Your task to perform on an android device: move a message to another label in the gmail app Image 0: 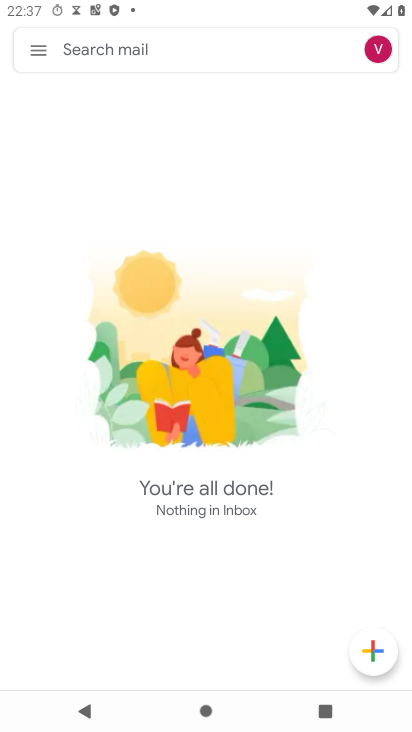
Step 0: drag from (143, 568) to (291, 152)
Your task to perform on an android device: move a message to another label in the gmail app Image 1: 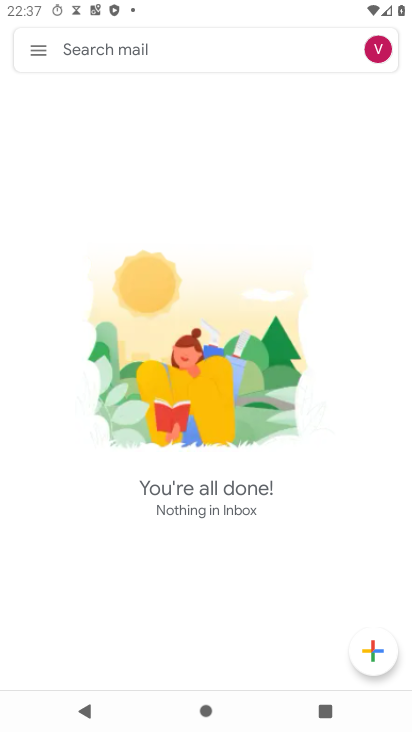
Step 1: task complete